Your task to perform on an android device: What's on my calendar today? Image 0: 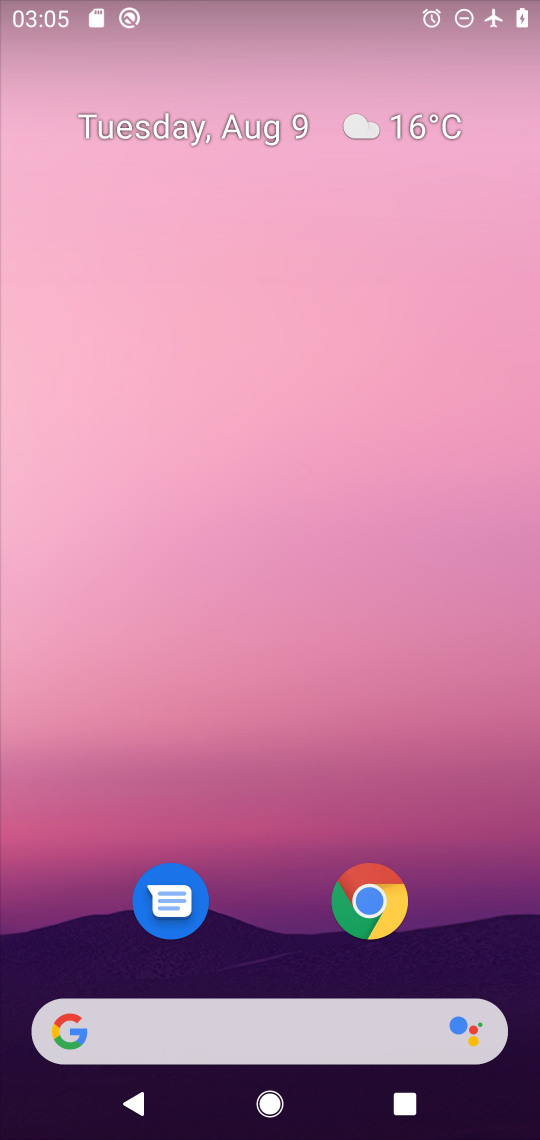
Step 0: drag from (476, 720) to (455, 270)
Your task to perform on an android device: What's on my calendar today? Image 1: 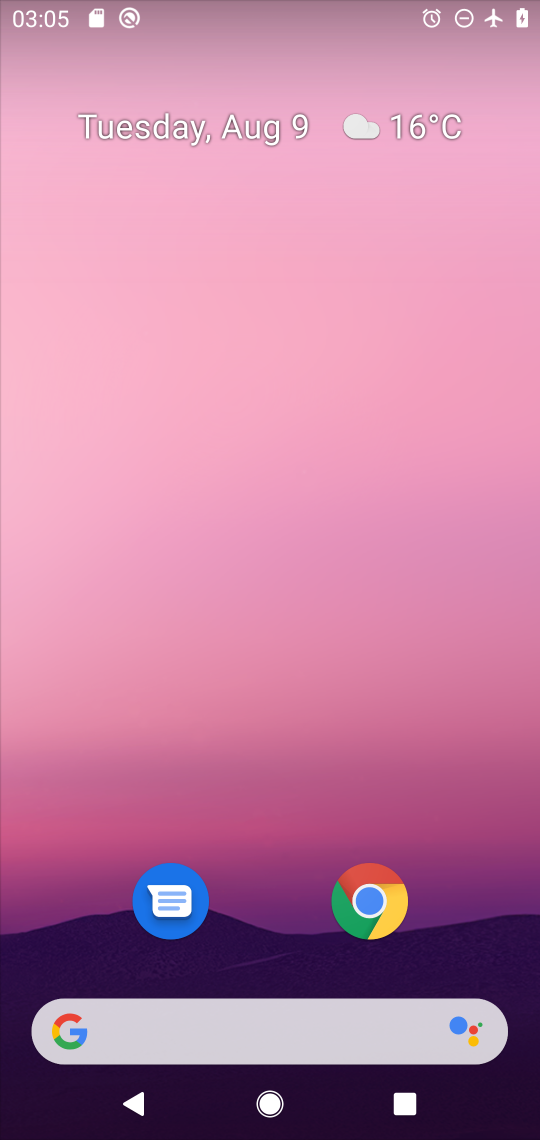
Step 1: drag from (493, 962) to (461, 166)
Your task to perform on an android device: What's on my calendar today? Image 2: 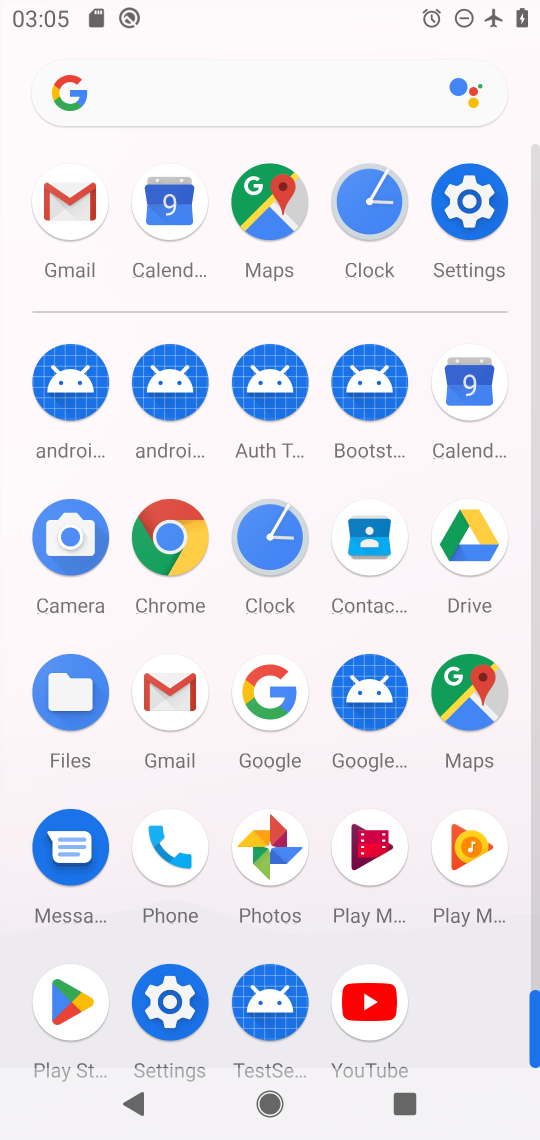
Step 2: click (472, 384)
Your task to perform on an android device: What's on my calendar today? Image 3: 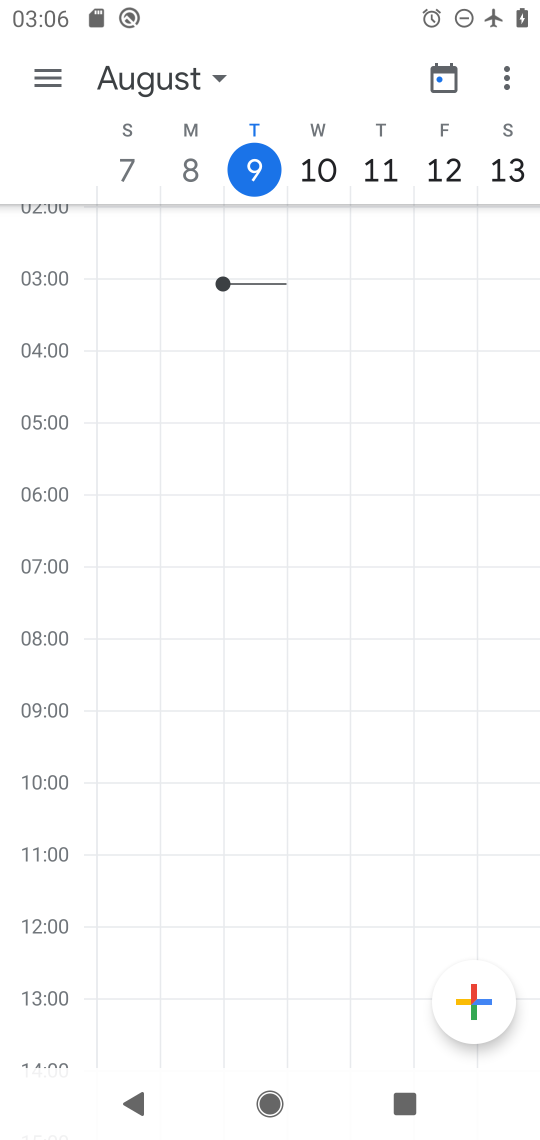
Step 3: click (46, 72)
Your task to perform on an android device: What's on my calendar today? Image 4: 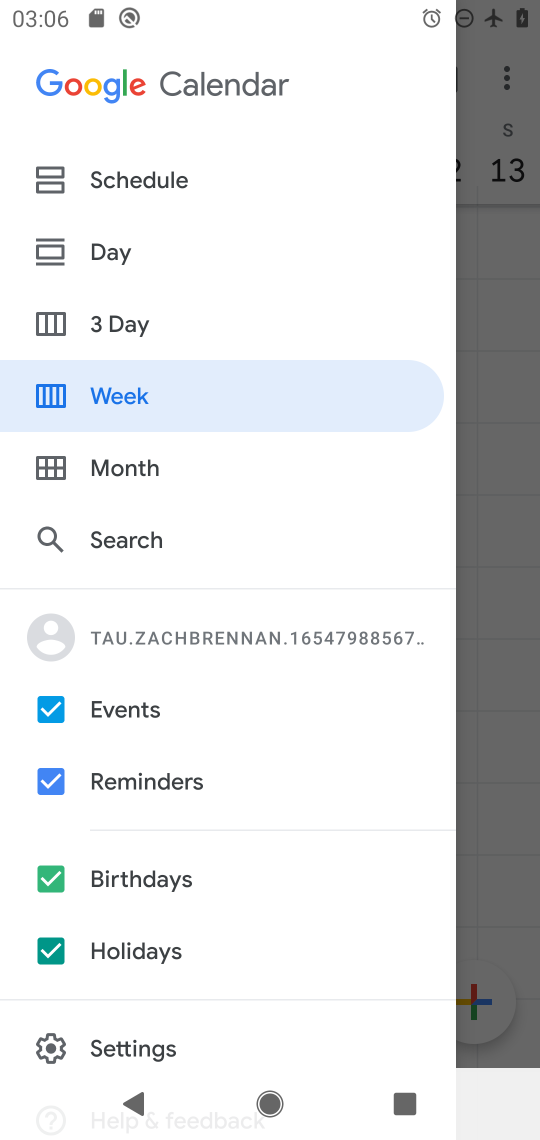
Step 4: click (110, 248)
Your task to perform on an android device: What's on my calendar today? Image 5: 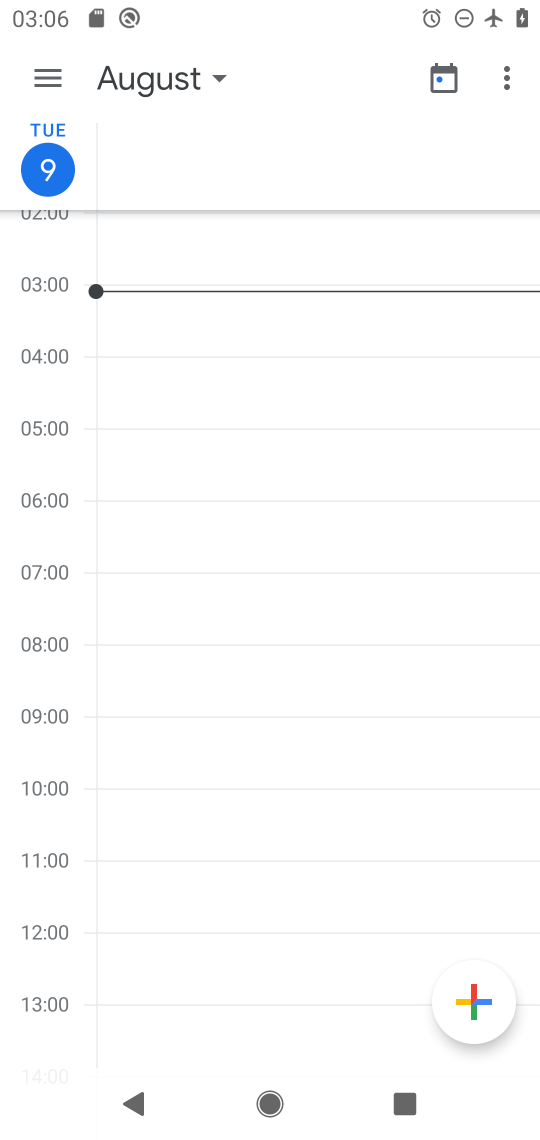
Step 5: click (206, 82)
Your task to perform on an android device: What's on my calendar today? Image 6: 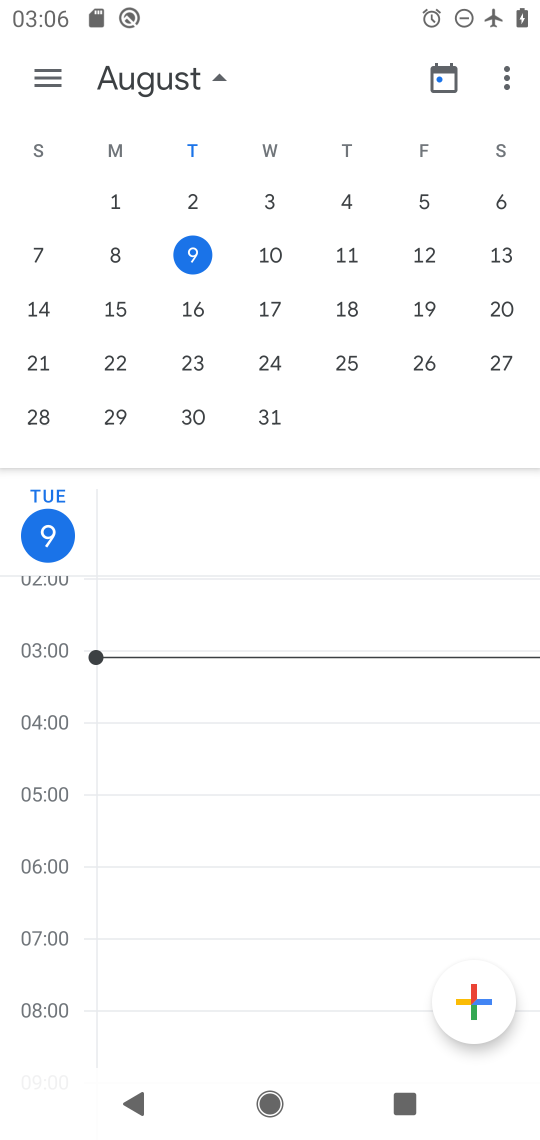
Step 6: click (195, 251)
Your task to perform on an android device: What's on my calendar today? Image 7: 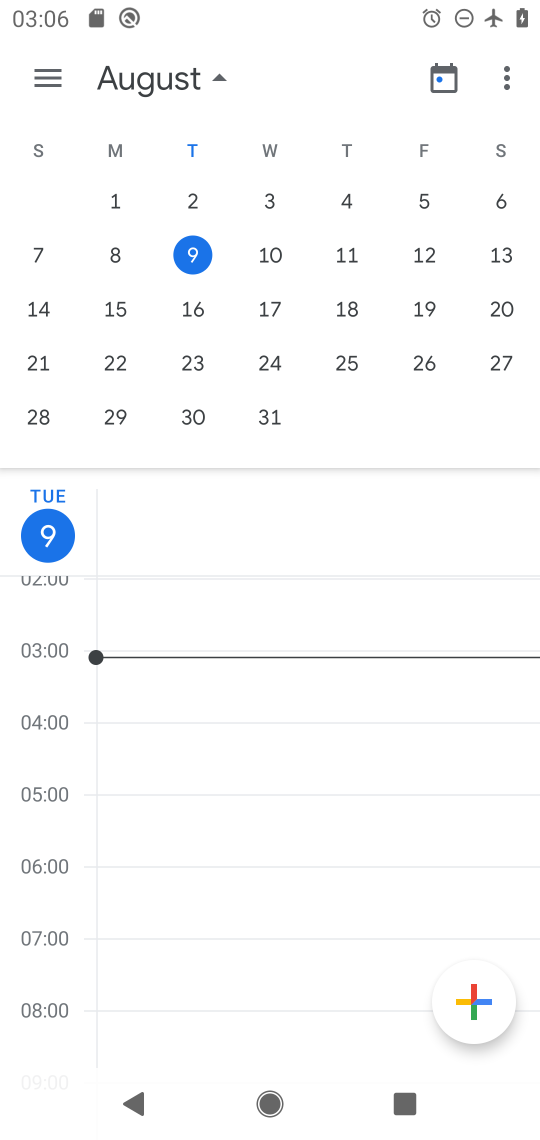
Step 7: task complete